Your task to perform on an android device: Open accessibility settings Image 0: 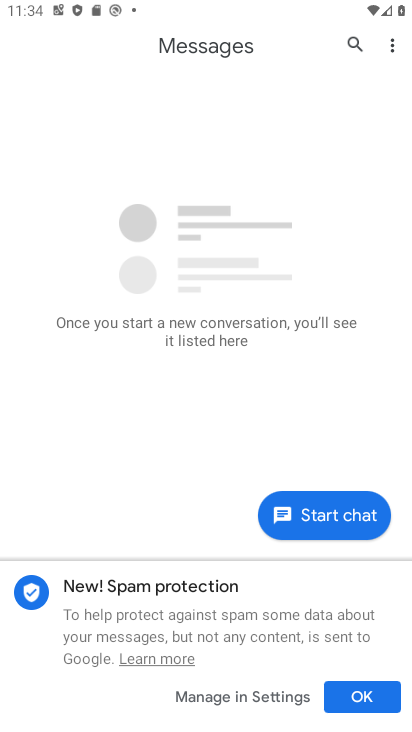
Step 0: press back button
Your task to perform on an android device: Open accessibility settings Image 1: 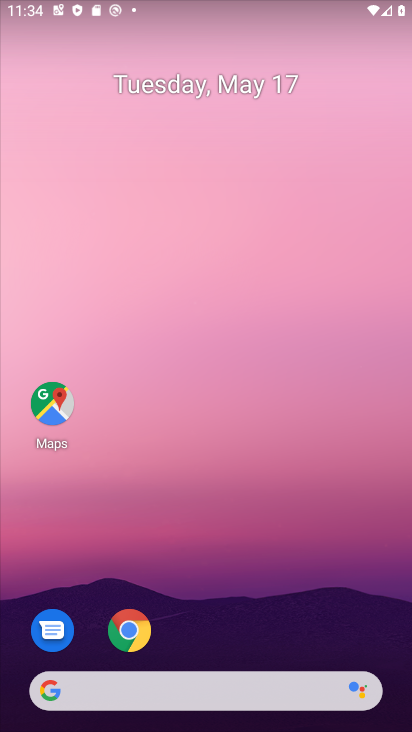
Step 1: drag from (264, 569) to (298, 142)
Your task to perform on an android device: Open accessibility settings Image 2: 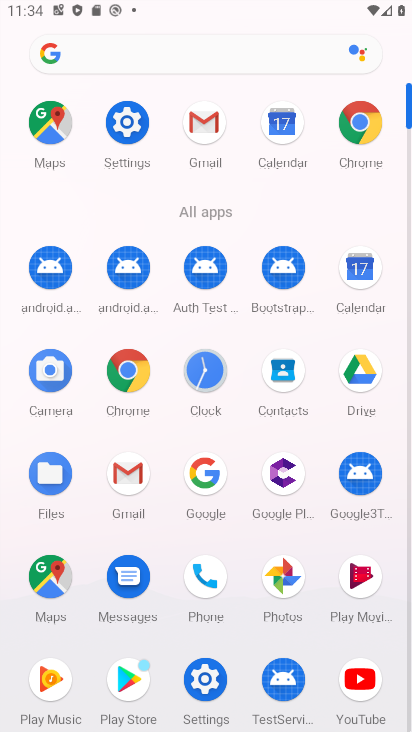
Step 2: click (137, 120)
Your task to perform on an android device: Open accessibility settings Image 3: 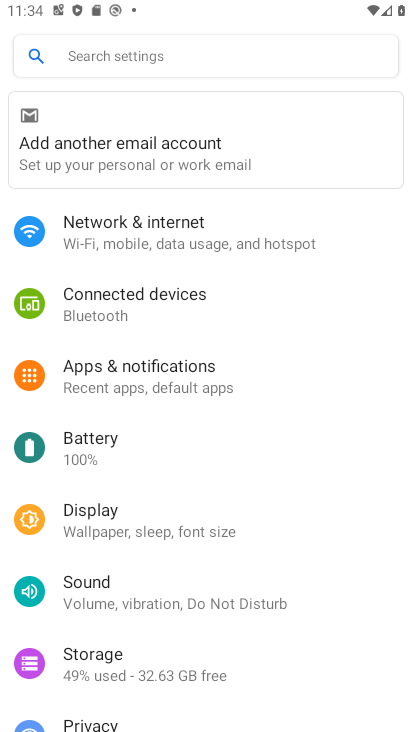
Step 3: drag from (139, 669) to (225, 251)
Your task to perform on an android device: Open accessibility settings Image 4: 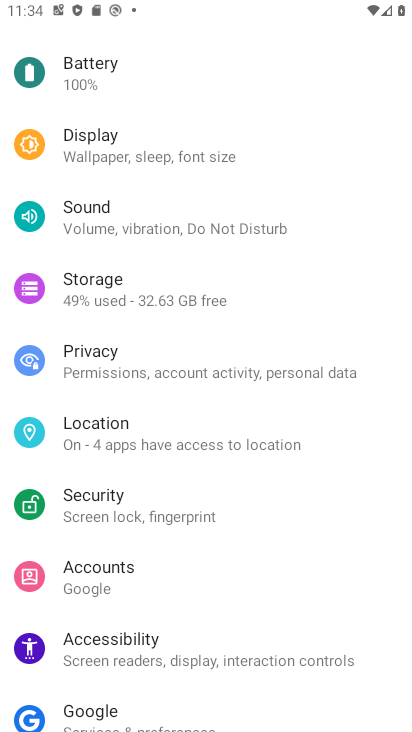
Step 4: click (133, 645)
Your task to perform on an android device: Open accessibility settings Image 5: 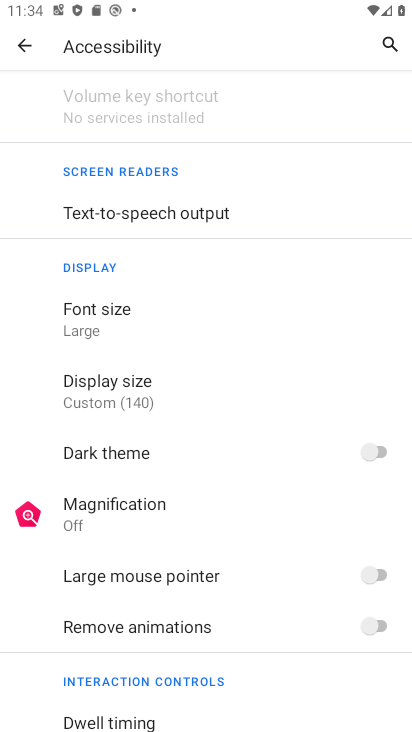
Step 5: task complete